Your task to perform on an android device: What is the capital of Mexico? Image 0: 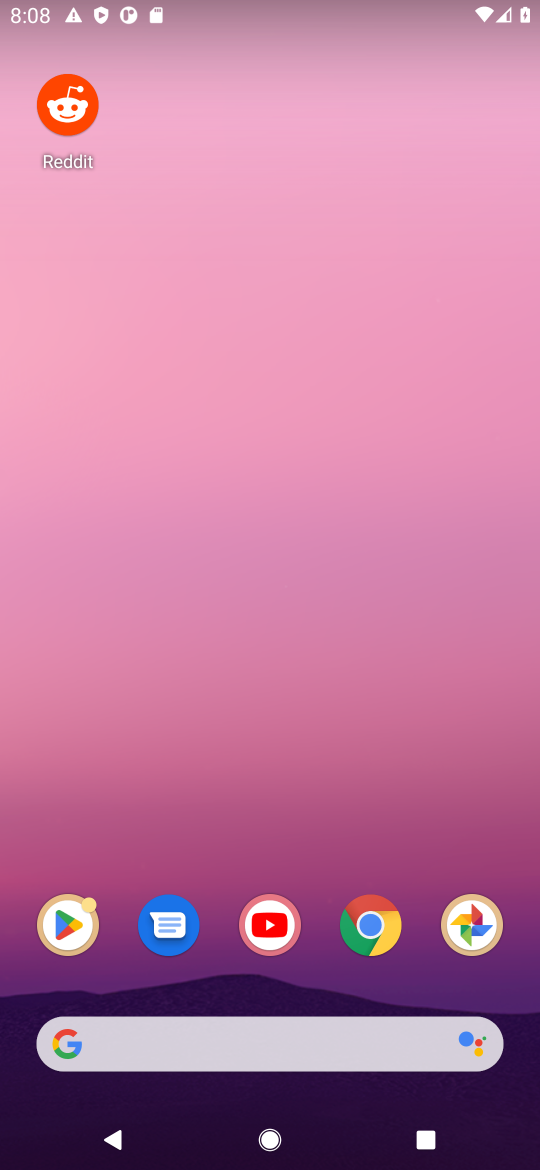
Step 0: drag from (332, 1013) to (323, 179)
Your task to perform on an android device: What is the capital of Mexico? Image 1: 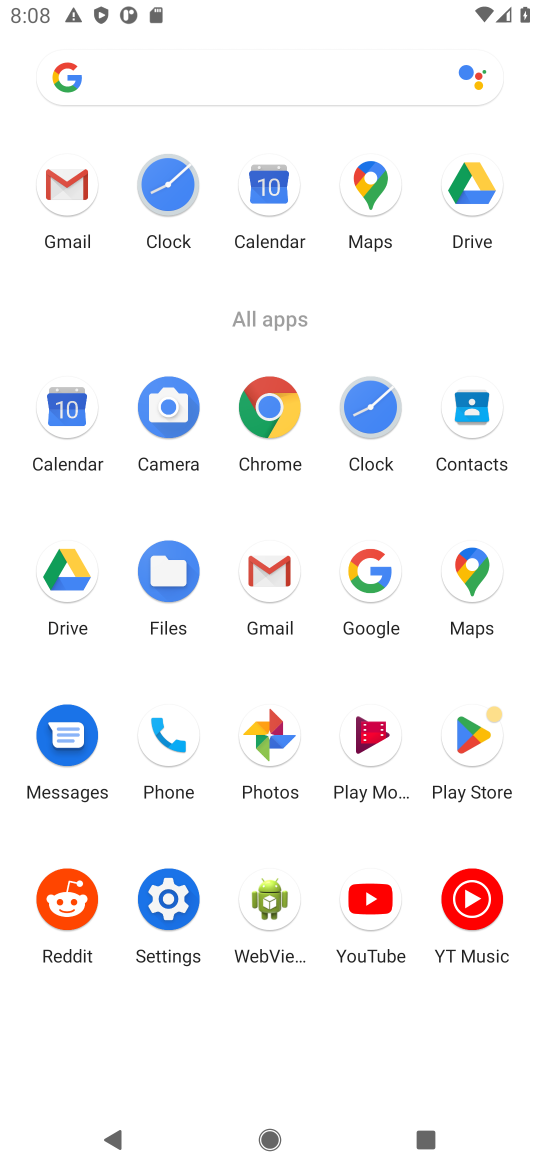
Step 1: click (270, 406)
Your task to perform on an android device: What is the capital of Mexico? Image 2: 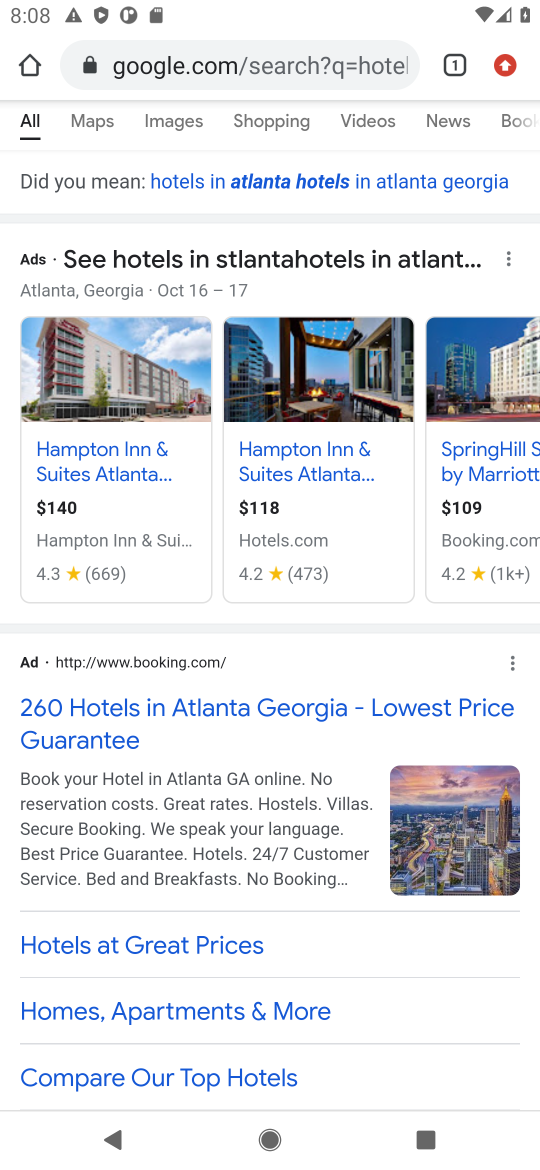
Step 2: click (320, 67)
Your task to perform on an android device: What is the capital of Mexico? Image 3: 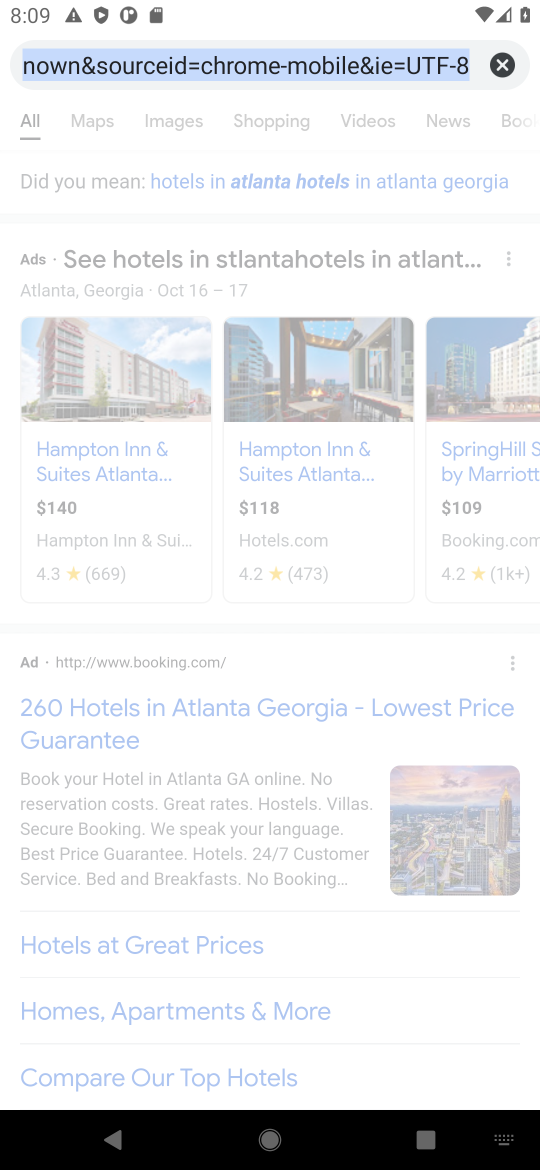
Step 3: type "What is the capital of Mexico?"
Your task to perform on an android device: What is the capital of Mexico? Image 4: 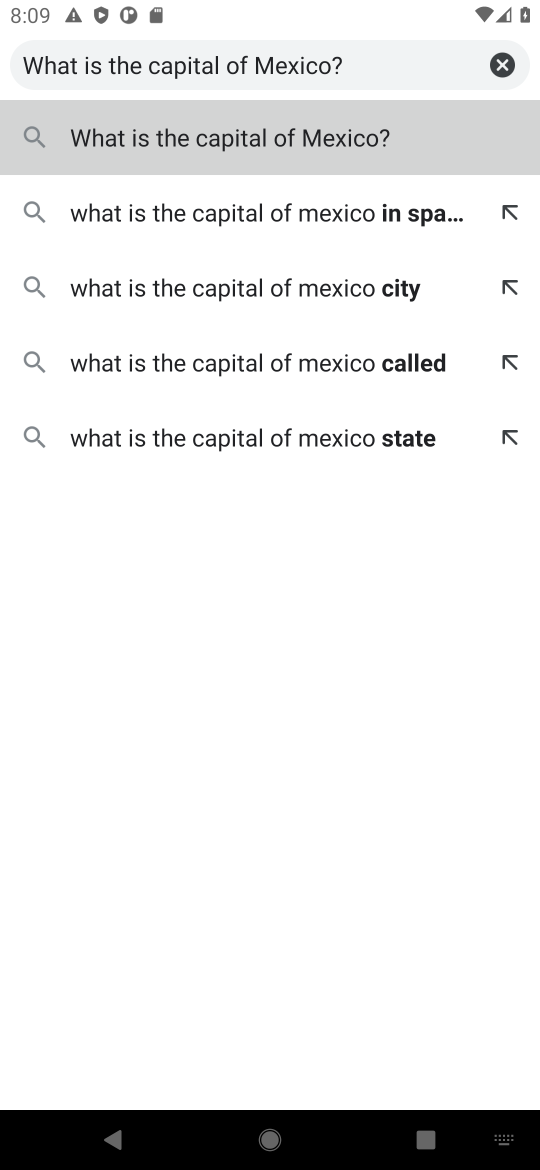
Step 4: press enter
Your task to perform on an android device: What is the capital of Mexico? Image 5: 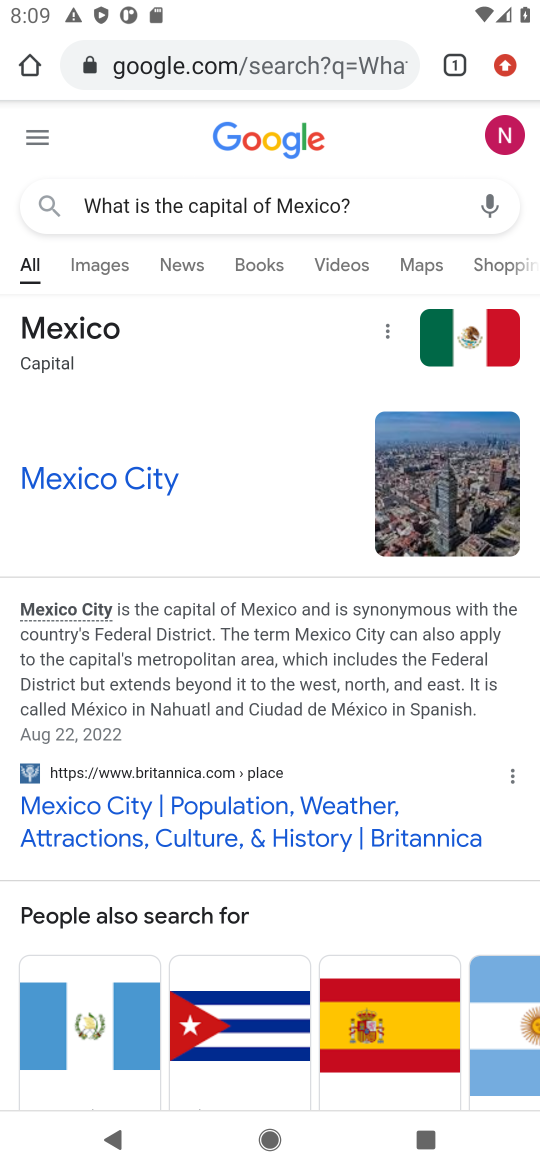
Step 5: task complete